Your task to perform on an android device: turn off wifi Image 0: 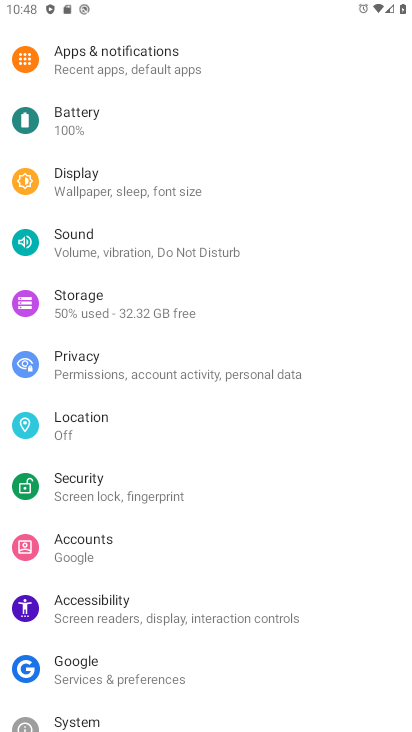
Step 0: drag from (186, 122) to (203, 593)
Your task to perform on an android device: turn off wifi Image 1: 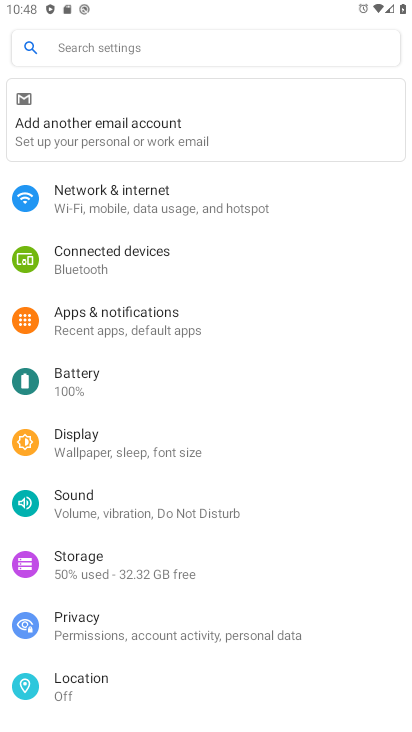
Step 1: click (98, 221)
Your task to perform on an android device: turn off wifi Image 2: 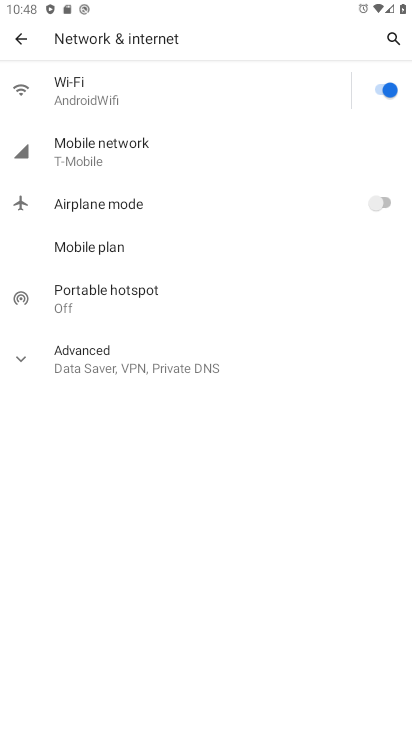
Step 2: click (100, 103)
Your task to perform on an android device: turn off wifi Image 3: 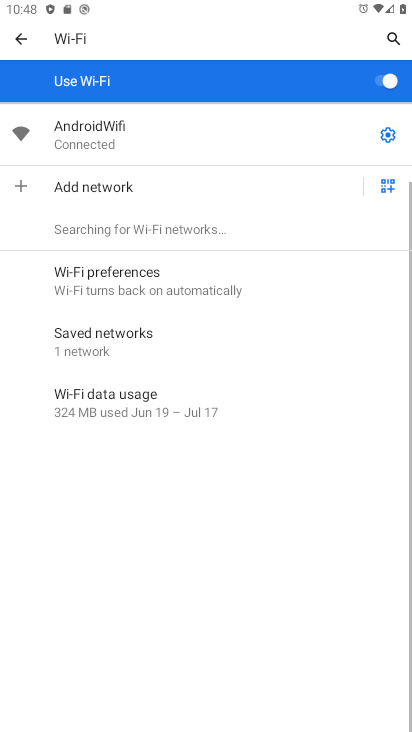
Step 3: click (394, 89)
Your task to perform on an android device: turn off wifi Image 4: 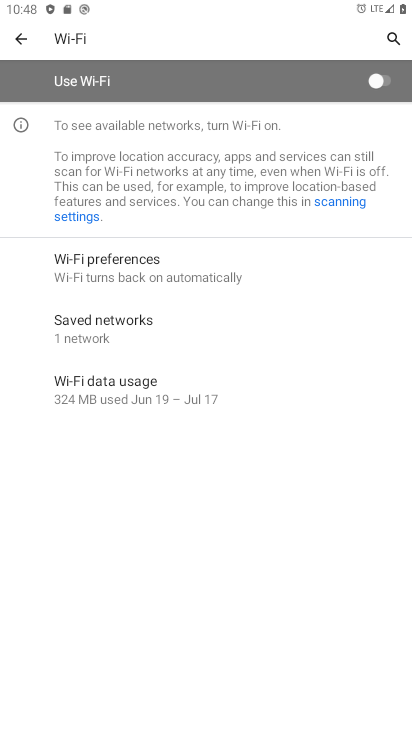
Step 4: task complete